Your task to perform on an android device: Is it going to rain today? Image 0: 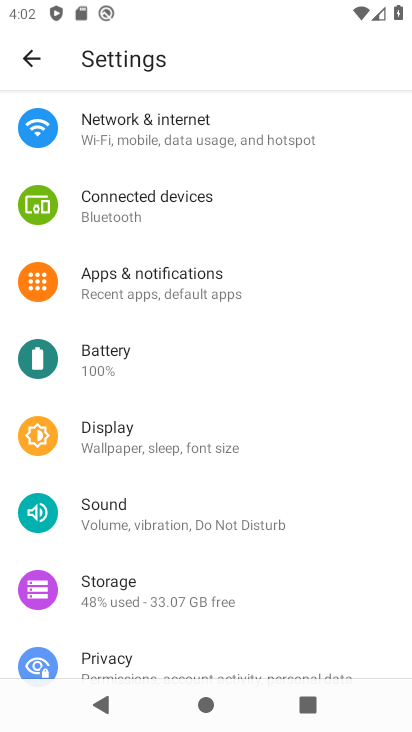
Step 0: press back button
Your task to perform on an android device: Is it going to rain today? Image 1: 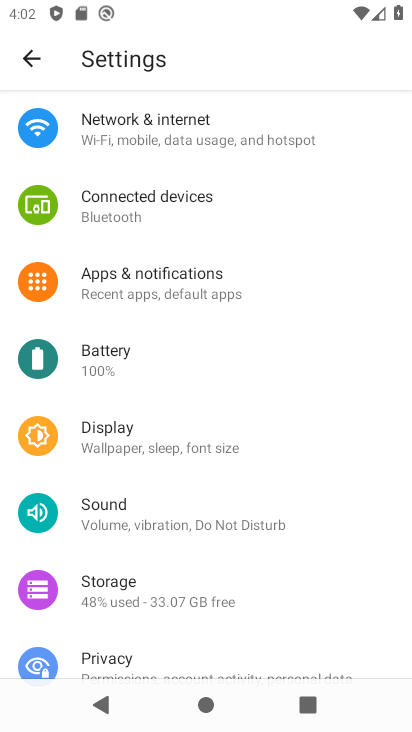
Step 1: press back button
Your task to perform on an android device: Is it going to rain today? Image 2: 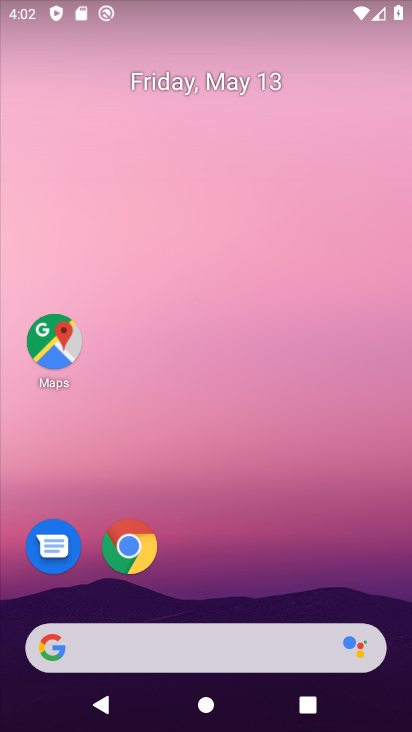
Step 2: drag from (222, 673) to (101, 24)
Your task to perform on an android device: Is it going to rain today? Image 3: 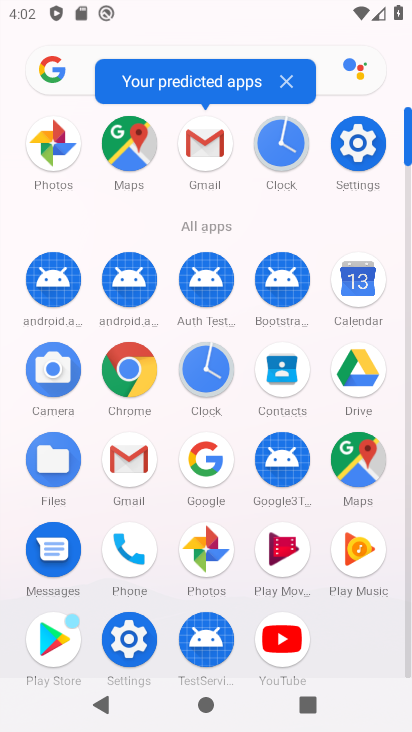
Step 3: press home button
Your task to perform on an android device: Is it going to rain today? Image 4: 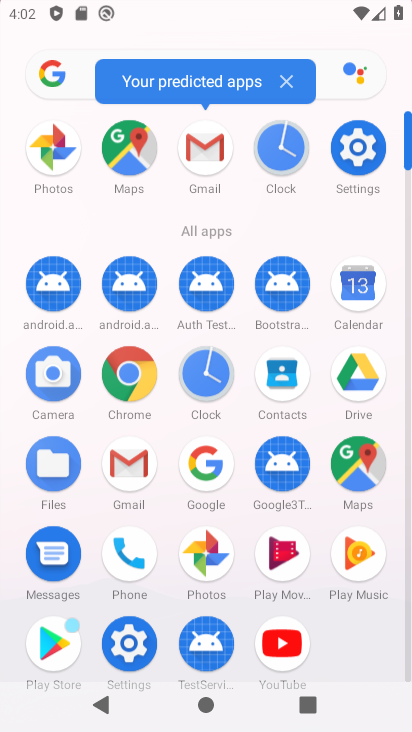
Step 4: press home button
Your task to perform on an android device: Is it going to rain today? Image 5: 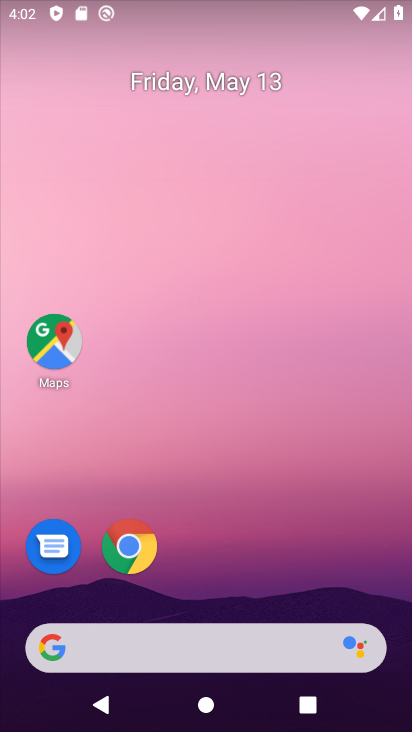
Step 5: press home button
Your task to perform on an android device: Is it going to rain today? Image 6: 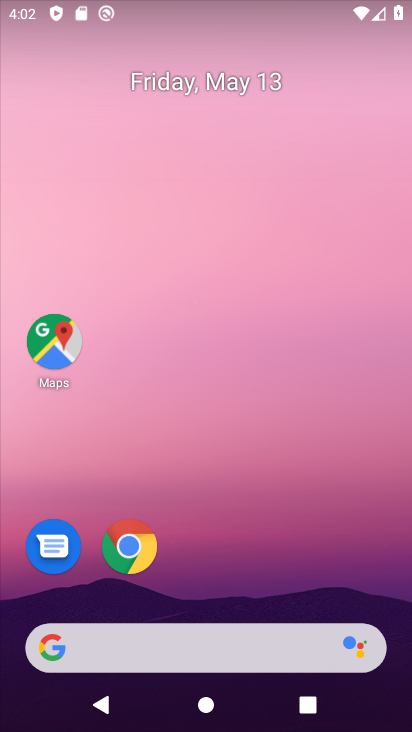
Step 6: drag from (11, 159) to (384, 445)
Your task to perform on an android device: Is it going to rain today? Image 7: 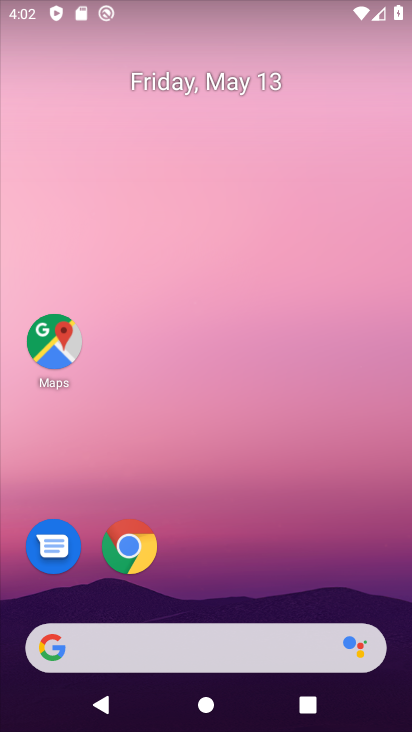
Step 7: drag from (31, 172) to (391, 430)
Your task to perform on an android device: Is it going to rain today? Image 8: 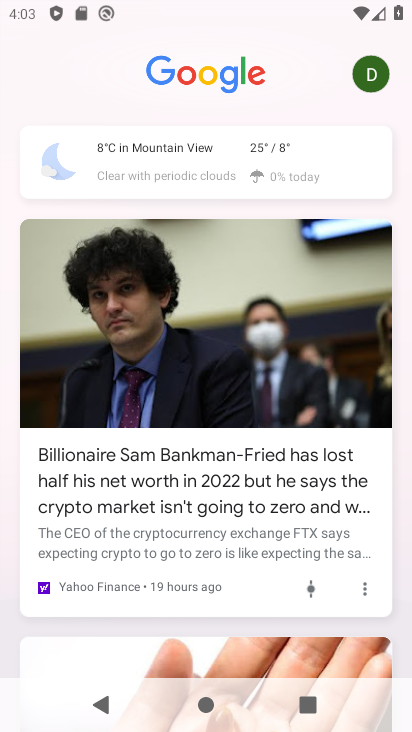
Step 8: click (174, 157)
Your task to perform on an android device: Is it going to rain today? Image 9: 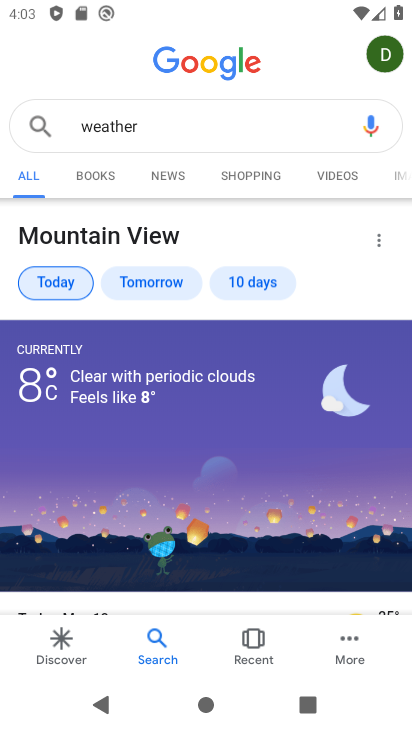
Step 9: drag from (149, 445) to (119, 259)
Your task to perform on an android device: Is it going to rain today? Image 10: 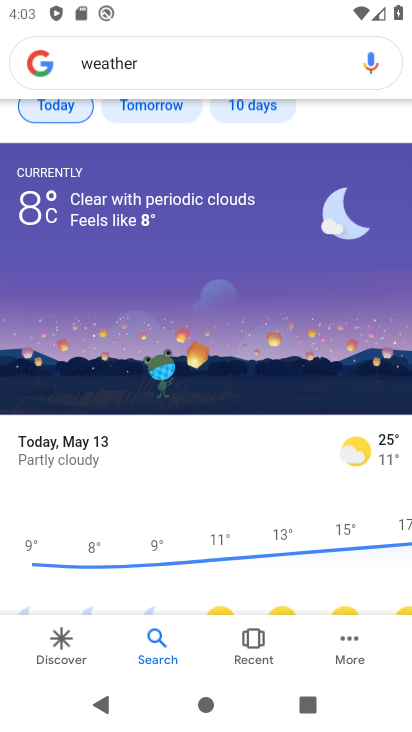
Step 10: drag from (179, 430) to (157, 207)
Your task to perform on an android device: Is it going to rain today? Image 11: 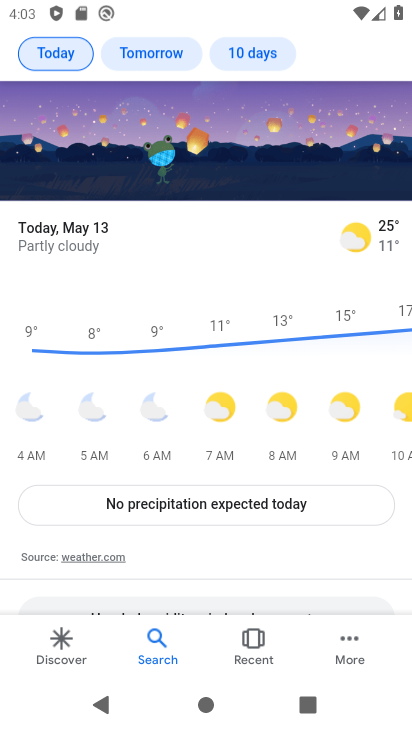
Step 11: click (361, 243)
Your task to perform on an android device: Is it going to rain today? Image 12: 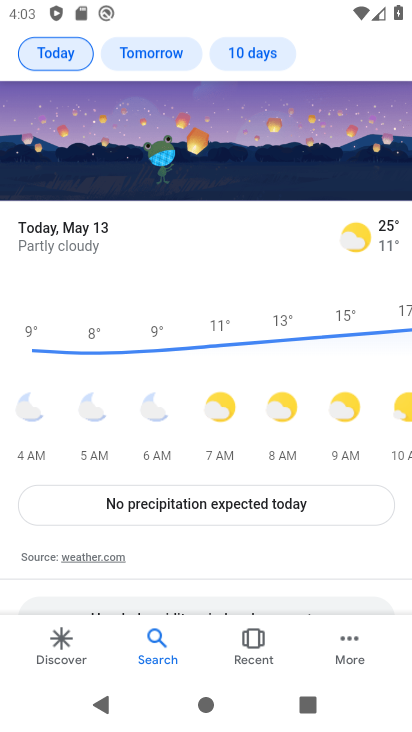
Step 12: task complete